Your task to perform on an android device: Open my contact list Image 0: 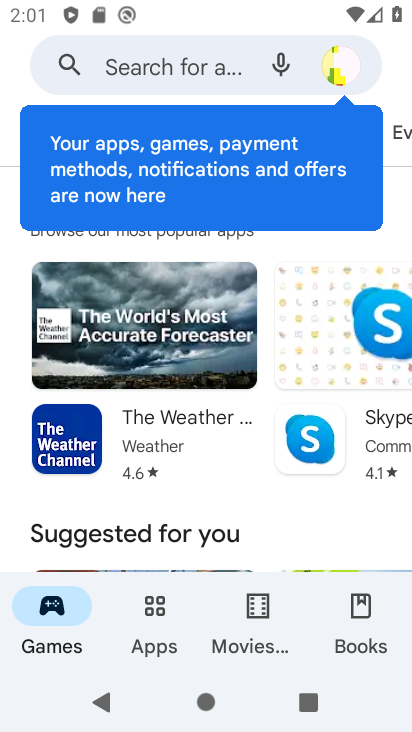
Step 0: press home button
Your task to perform on an android device: Open my contact list Image 1: 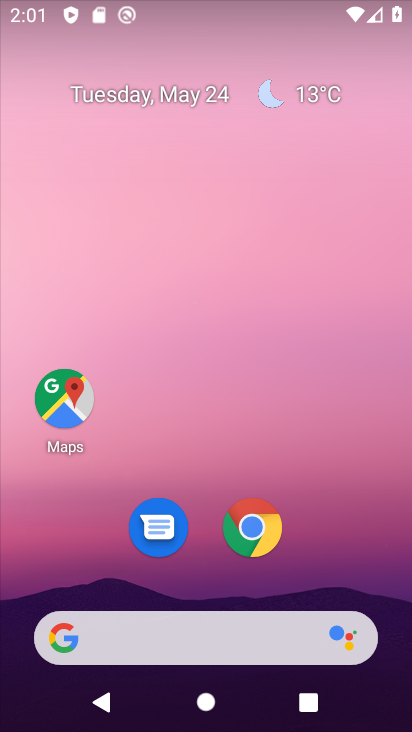
Step 1: drag from (215, 573) to (254, 97)
Your task to perform on an android device: Open my contact list Image 2: 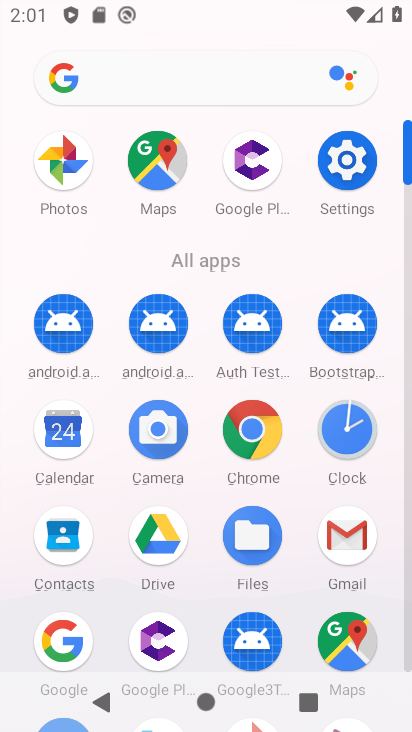
Step 2: click (54, 533)
Your task to perform on an android device: Open my contact list Image 3: 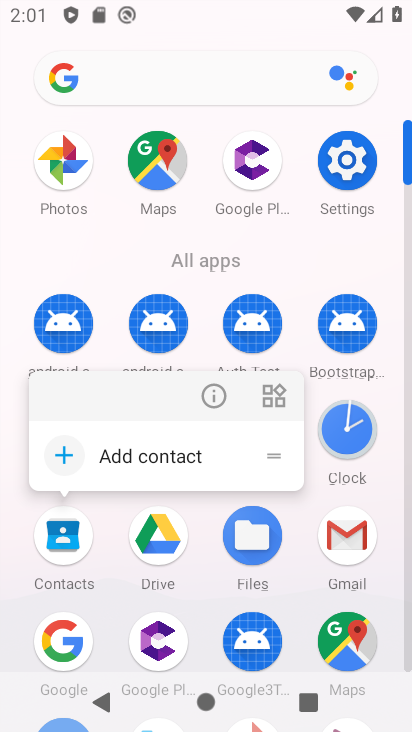
Step 3: click (59, 529)
Your task to perform on an android device: Open my contact list Image 4: 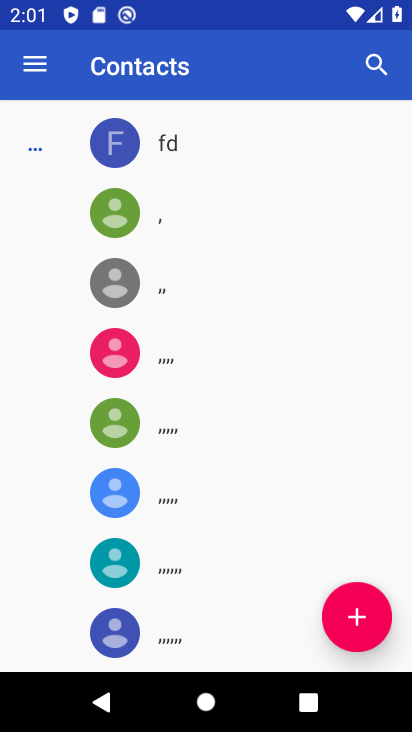
Step 4: task complete